Your task to perform on an android device: find snoozed emails in the gmail app Image 0: 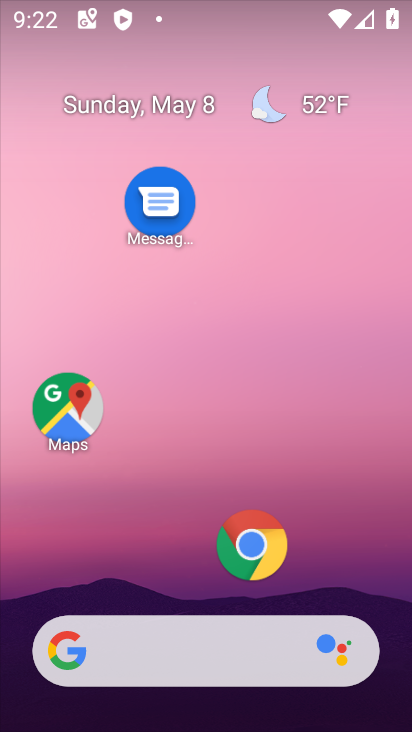
Step 0: drag from (214, 606) to (308, 24)
Your task to perform on an android device: find snoozed emails in the gmail app Image 1: 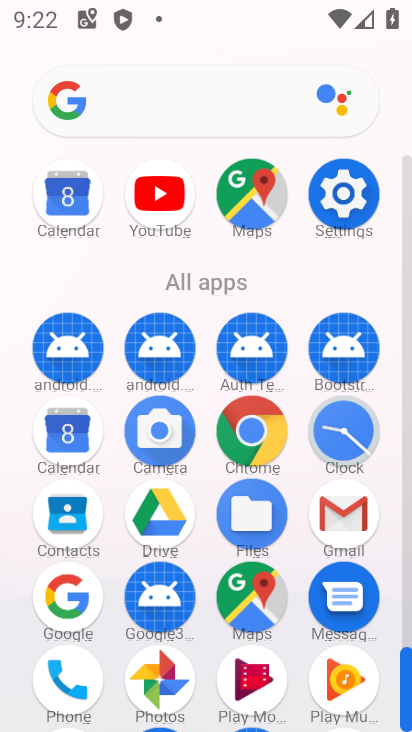
Step 1: click (359, 496)
Your task to perform on an android device: find snoozed emails in the gmail app Image 2: 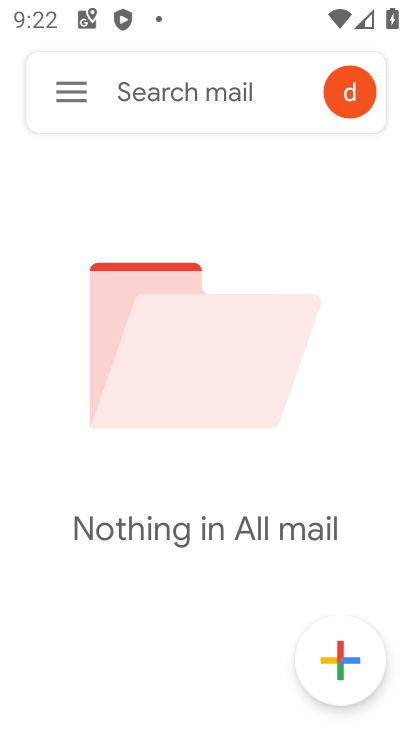
Step 2: click (65, 97)
Your task to perform on an android device: find snoozed emails in the gmail app Image 3: 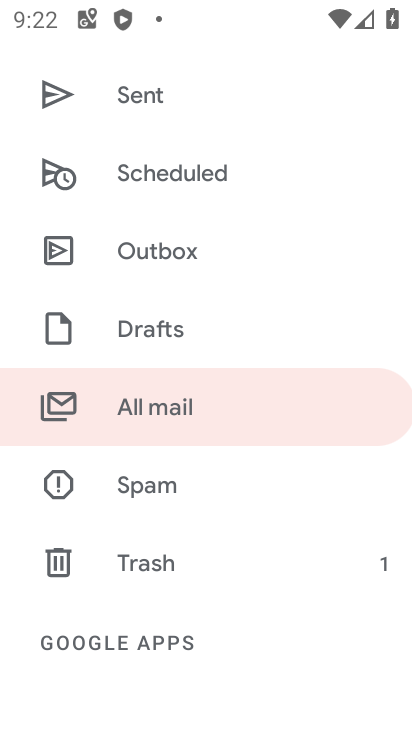
Step 3: drag from (184, 489) to (124, 81)
Your task to perform on an android device: find snoozed emails in the gmail app Image 4: 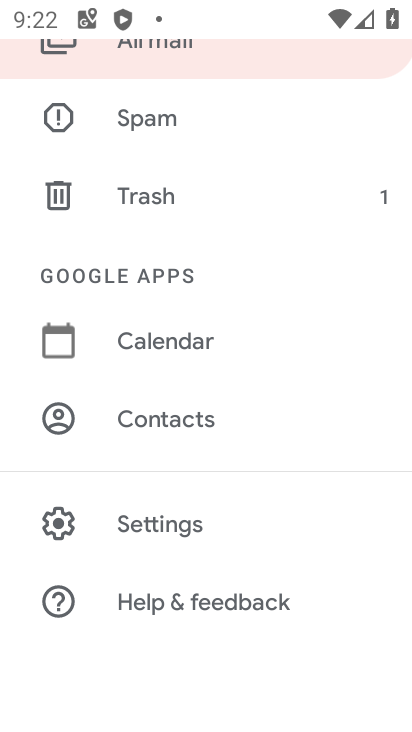
Step 4: drag from (182, 249) to (151, 692)
Your task to perform on an android device: find snoozed emails in the gmail app Image 5: 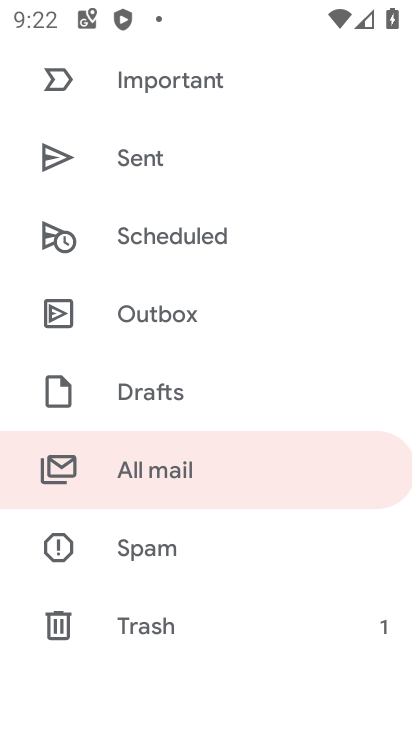
Step 5: drag from (174, 142) to (178, 522)
Your task to perform on an android device: find snoozed emails in the gmail app Image 6: 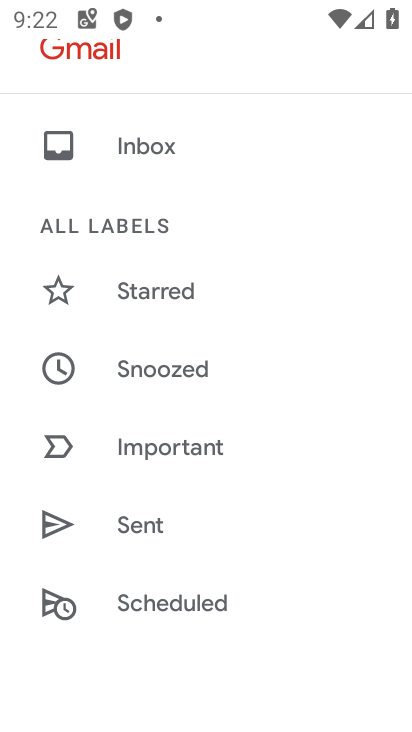
Step 6: click (160, 387)
Your task to perform on an android device: find snoozed emails in the gmail app Image 7: 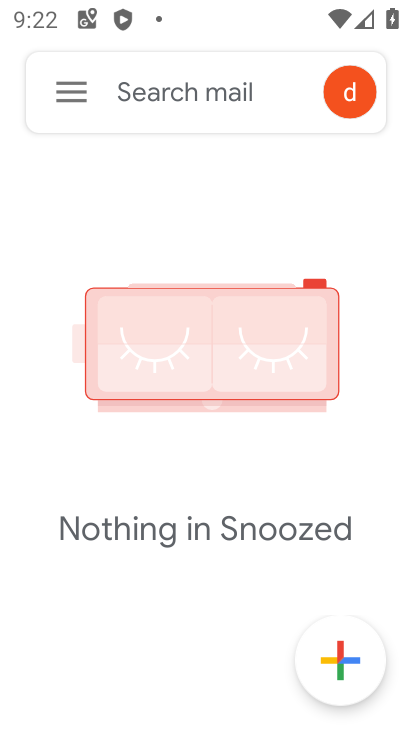
Step 7: task complete